Your task to perform on an android device: find snoozed emails in the gmail app Image 0: 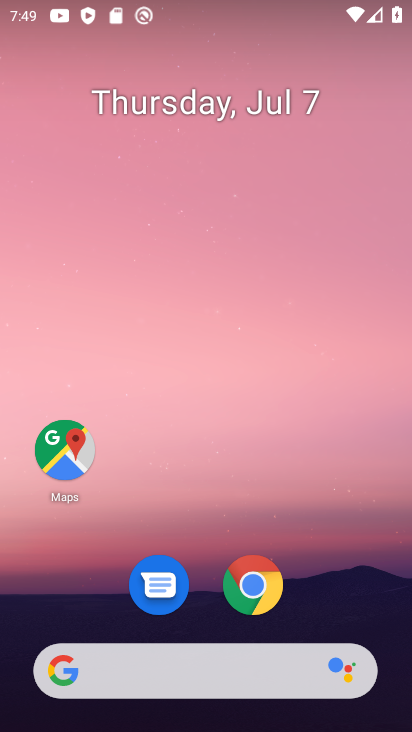
Step 0: drag from (270, 516) to (299, 59)
Your task to perform on an android device: find snoozed emails in the gmail app Image 1: 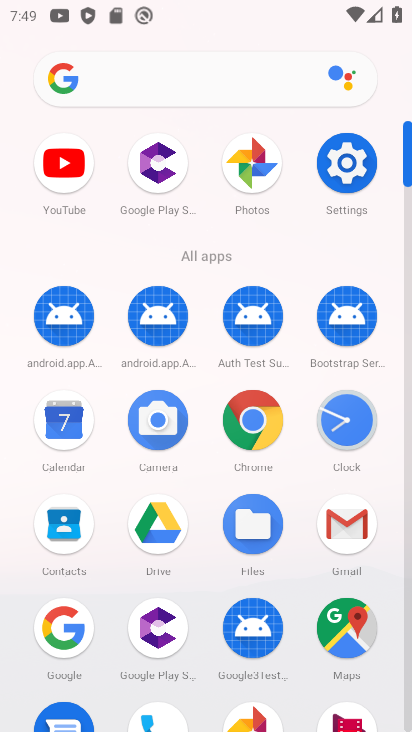
Step 1: click (341, 515)
Your task to perform on an android device: find snoozed emails in the gmail app Image 2: 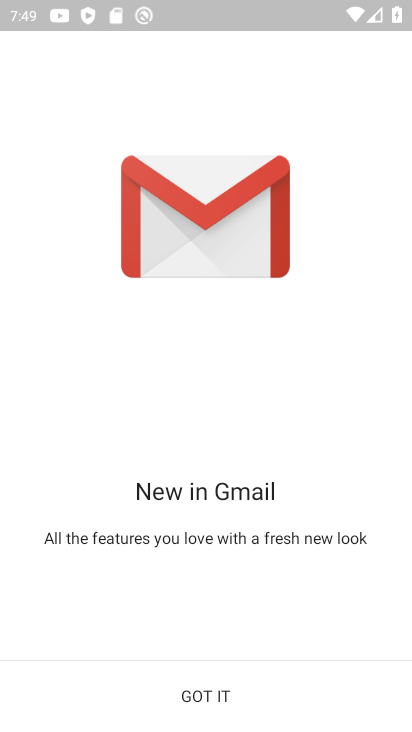
Step 2: click (204, 694)
Your task to perform on an android device: find snoozed emails in the gmail app Image 3: 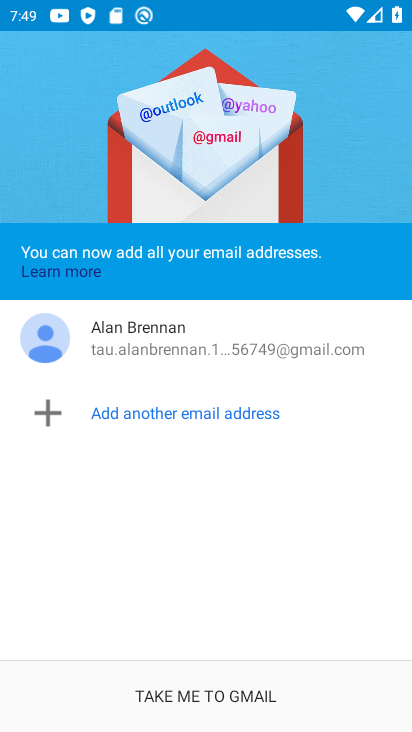
Step 3: click (204, 692)
Your task to perform on an android device: find snoozed emails in the gmail app Image 4: 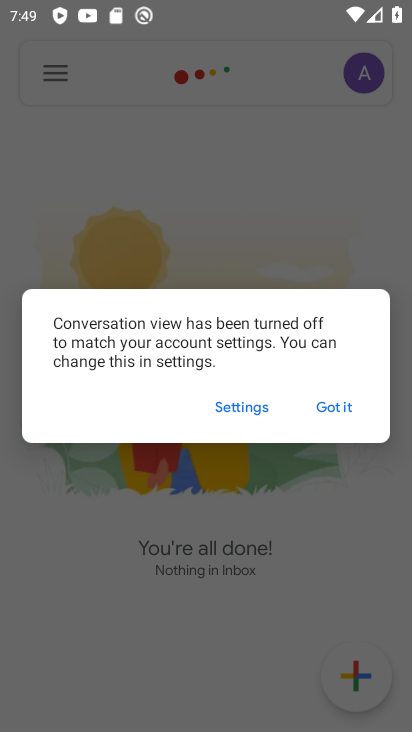
Step 4: click (338, 406)
Your task to perform on an android device: find snoozed emails in the gmail app Image 5: 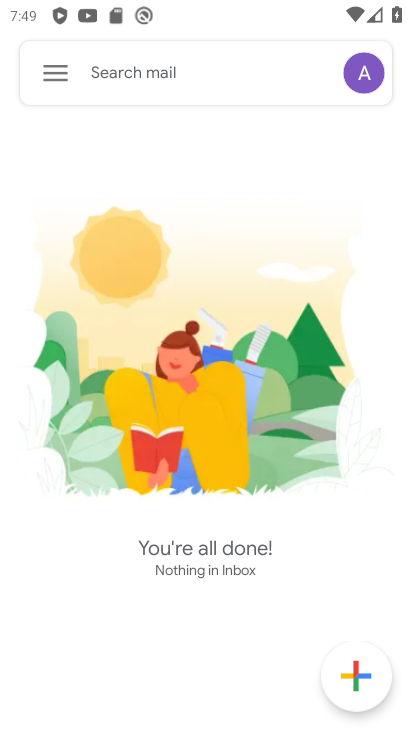
Step 5: click (54, 71)
Your task to perform on an android device: find snoozed emails in the gmail app Image 6: 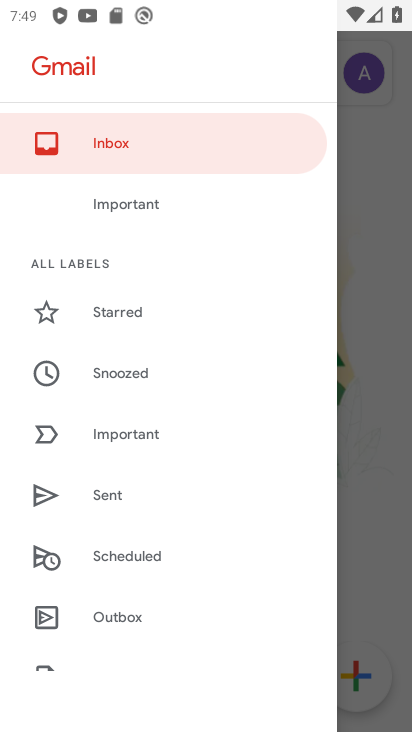
Step 6: click (103, 368)
Your task to perform on an android device: find snoozed emails in the gmail app Image 7: 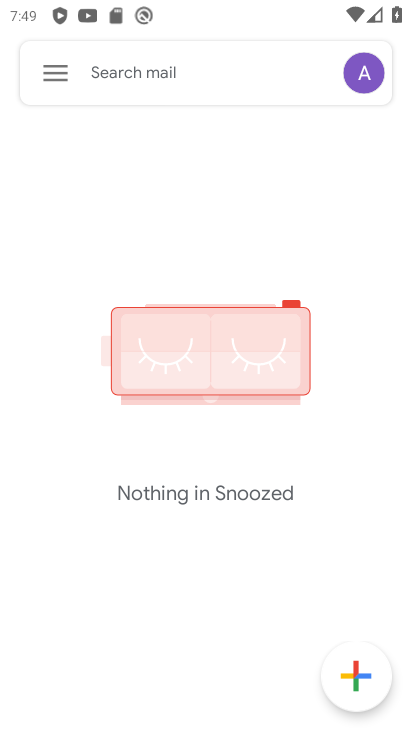
Step 7: task complete